Your task to perform on an android device: Show me popular games on the Play Store Image 0: 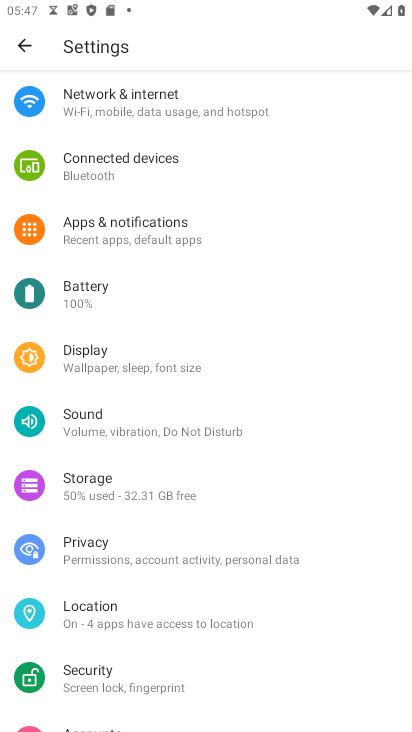
Step 0: press home button
Your task to perform on an android device: Show me popular games on the Play Store Image 1: 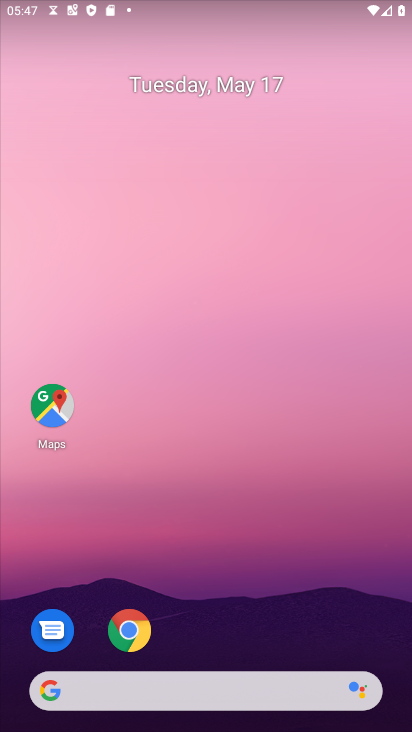
Step 1: drag from (193, 664) to (269, 140)
Your task to perform on an android device: Show me popular games on the Play Store Image 2: 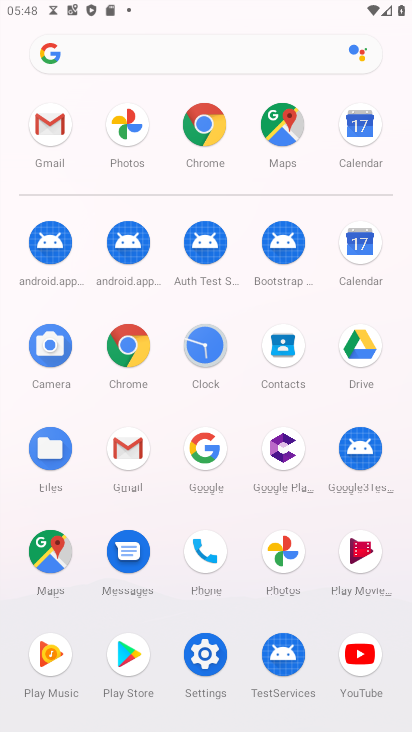
Step 2: click (211, 453)
Your task to perform on an android device: Show me popular games on the Play Store Image 3: 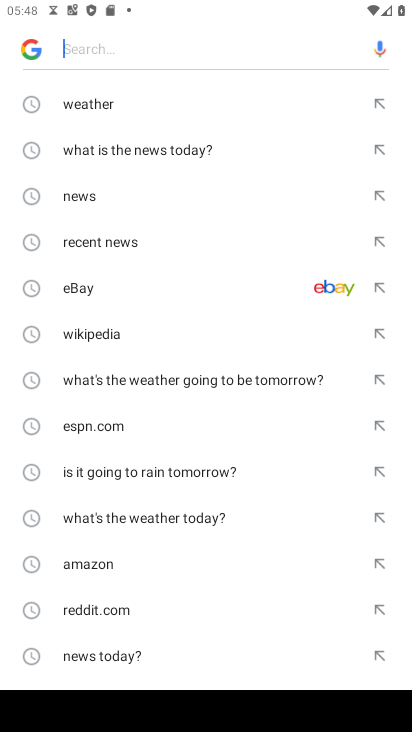
Step 3: press home button
Your task to perform on an android device: Show me popular games on the Play Store Image 4: 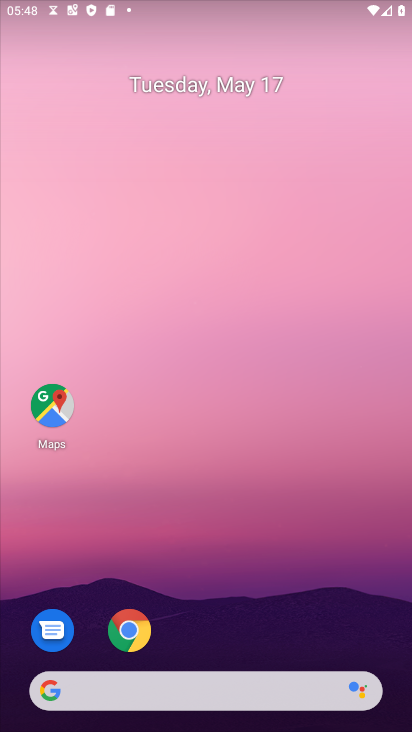
Step 4: drag from (207, 569) to (192, 53)
Your task to perform on an android device: Show me popular games on the Play Store Image 5: 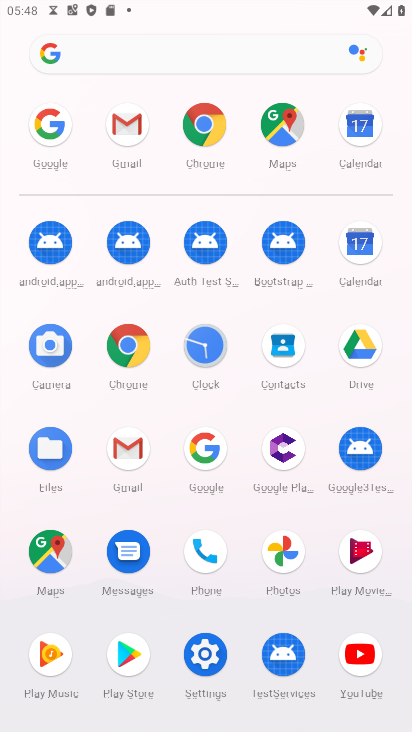
Step 5: click (113, 656)
Your task to perform on an android device: Show me popular games on the Play Store Image 6: 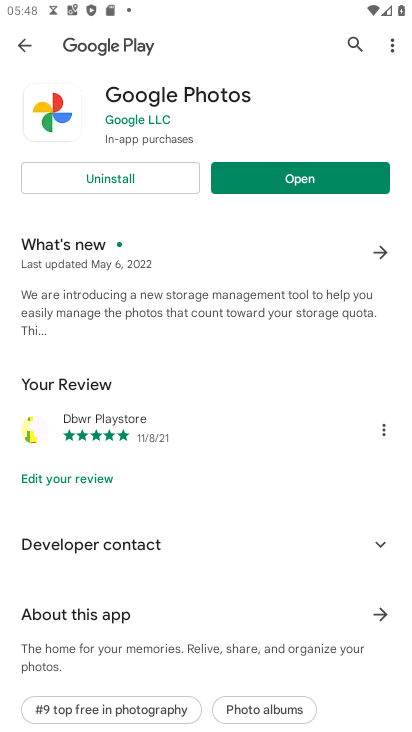
Step 6: click (29, 49)
Your task to perform on an android device: Show me popular games on the Play Store Image 7: 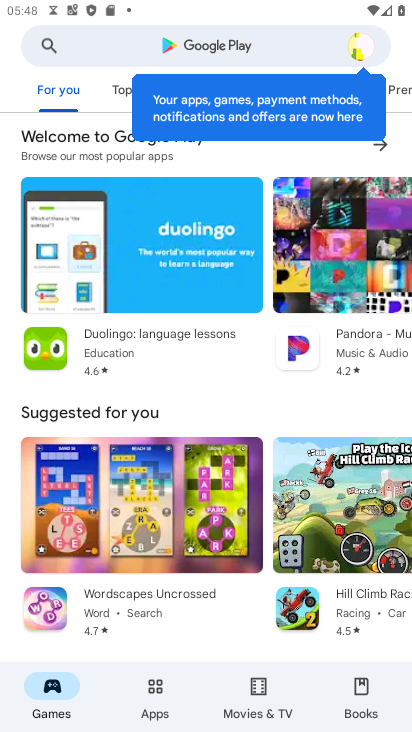
Step 7: click (73, 41)
Your task to perform on an android device: Show me popular games on the Play Store Image 8: 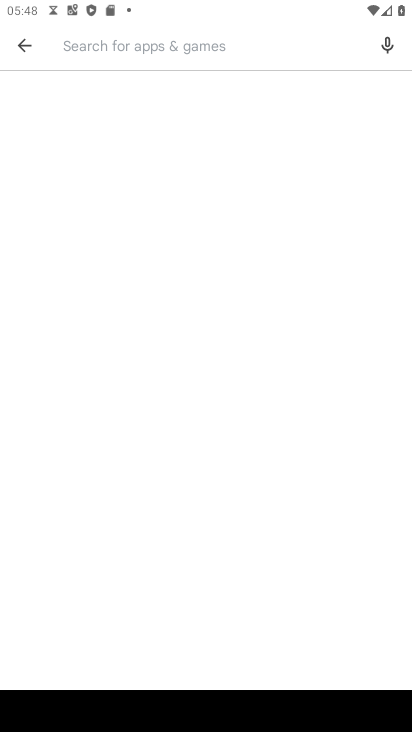
Step 8: type " popular games"
Your task to perform on an android device: Show me popular games on the Play Store Image 9: 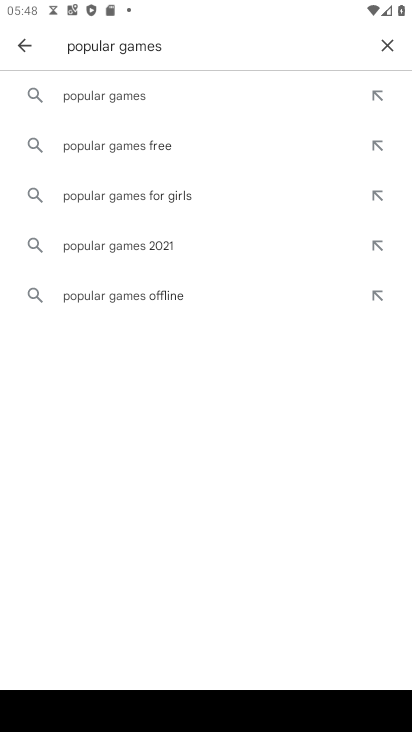
Step 9: click (80, 98)
Your task to perform on an android device: Show me popular games on the Play Store Image 10: 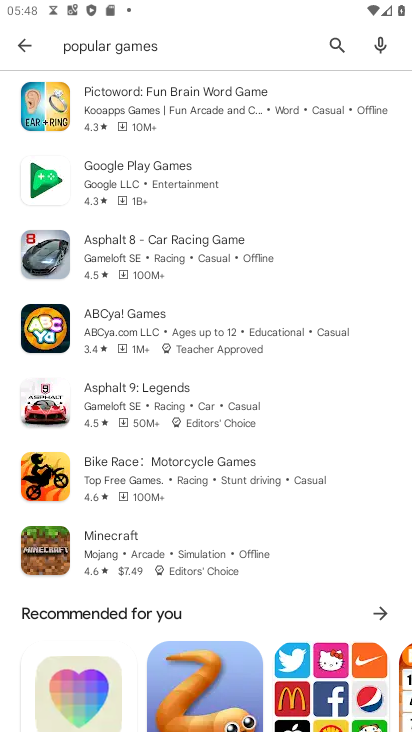
Step 10: task complete